Your task to perform on an android device: allow notifications from all sites in the chrome app Image 0: 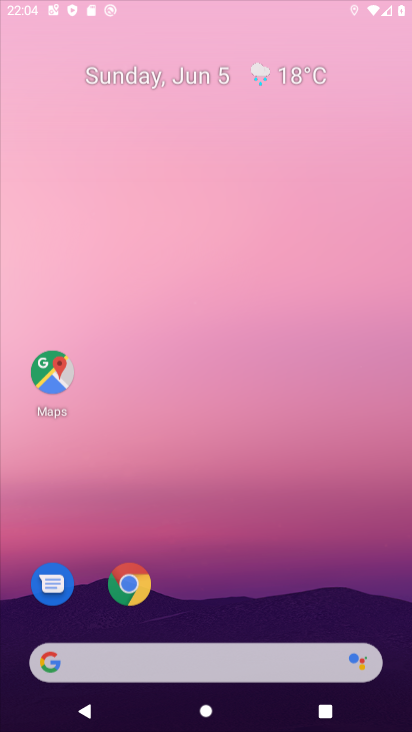
Step 0: drag from (327, 526) to (364, 182)
Your task to perform on an android device: allow notifications from all sites in the chrome app Image 1: 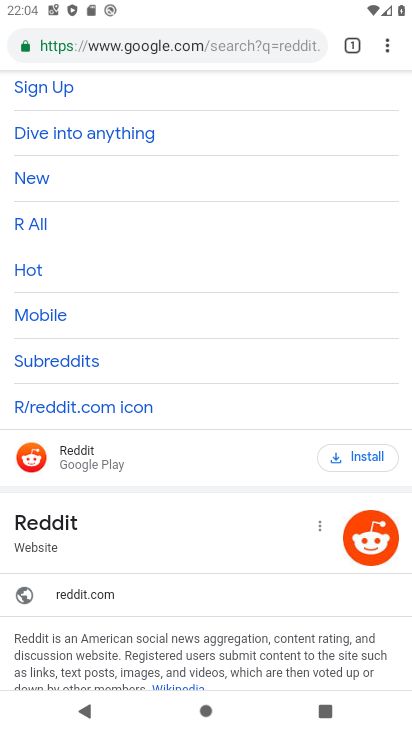
Step 1: press home button
Your task to perform on an android device: allow notifications from all sites in the chrome app Image 2: 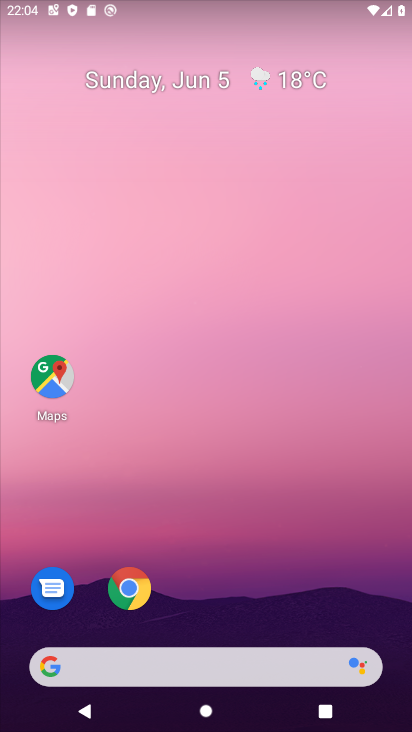
Step 2: drag from (366, 597) to (377, 148)
Your task to perform on an android device: allow notifications from all sites in the chrome app Image 3: 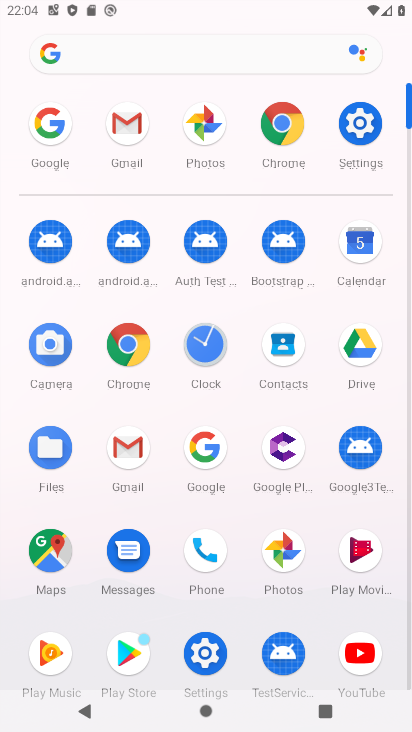
Step 3: click (145, 353)
Your task to perform on an android device: allow notifications from all sites in the chrome app Image 4: 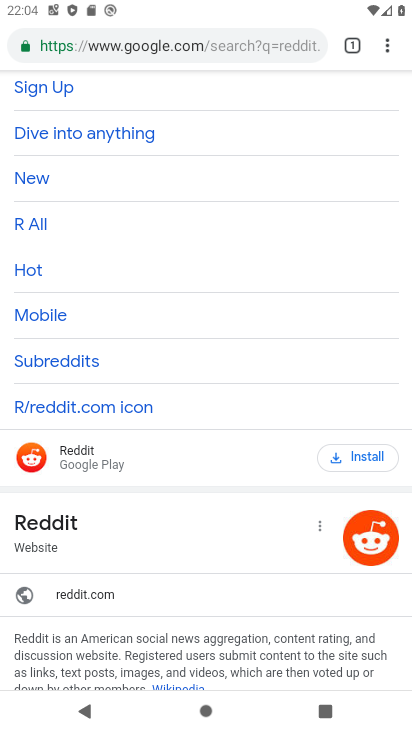
Step 4: drag from (225, 168) to (230, 324)
Your task to perform on an android device: allow notifications from all sites in the chrome app Image 5: 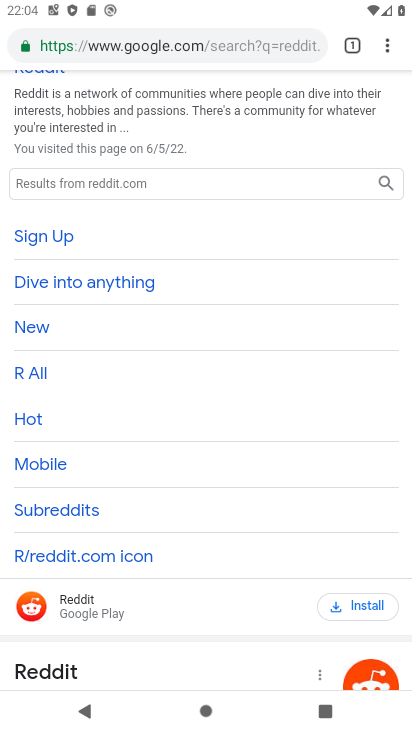
Step 5: drag from (234, 196) to (244, 378)
Your task to perform on an android device: allow notifications from all sites in the chrome app Image 6: 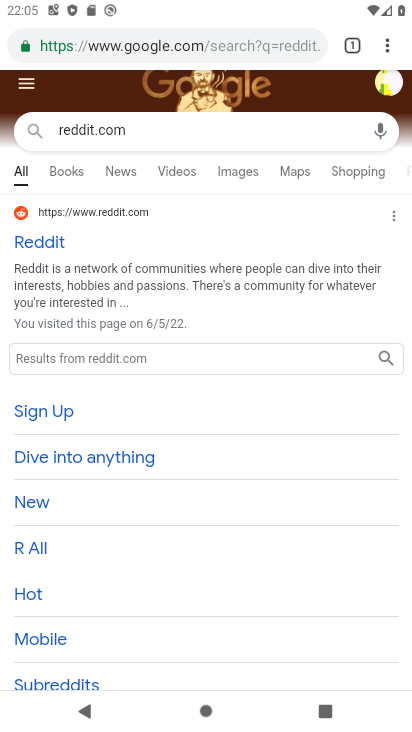
Step 6: click (385, 50)
Your task to perform on an android device: allow notifications from all sites in the chrome app Image 7: 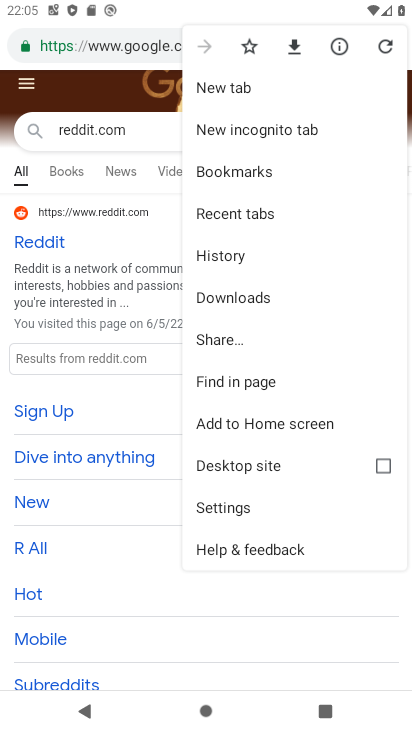
Step 7: click (277, 509)
Your task to perform on an android device: allow notifications from all sites in the chrome app Image 8: 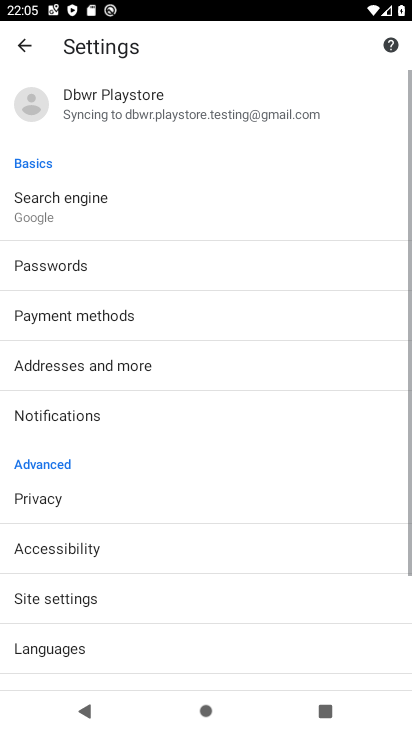
Step 8: drag from (269, 533) to (270, 444)
Your task to perform on an android device: allow notifications from all sites in the chrome app Image 9: 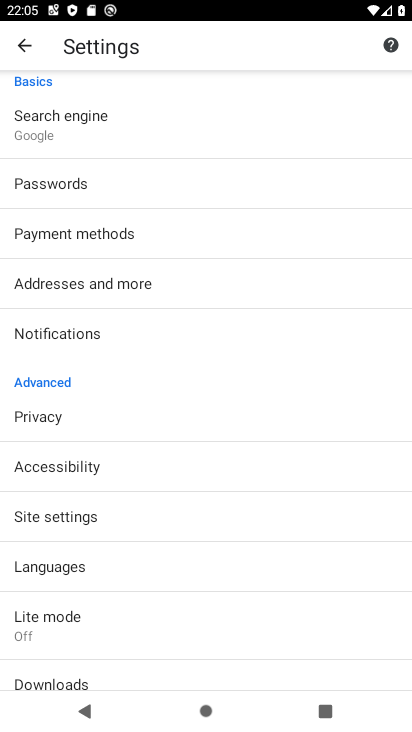
Step 9: drag from (274, 548) to (283, 461)
Your task to perform on an android device: allow notifications from all sites in the chrome app Image 10: 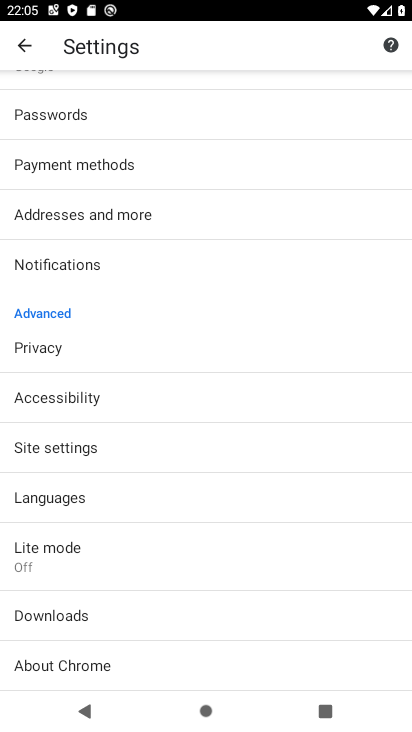
Step 10: drag from (253, 572) to (273, 480)
Your task to perform on an android device: allow notifications from all sites in the chrome app Image 11: 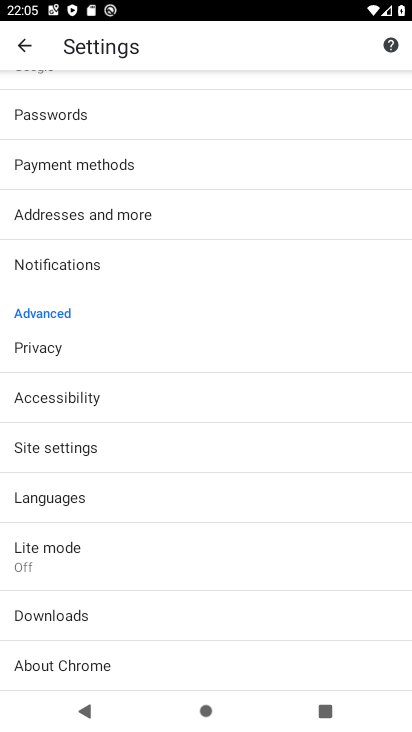
Step 11: click (191, 449)
Your task to perform on an android device: allow notifications from all sites in the chrome app Image 12: 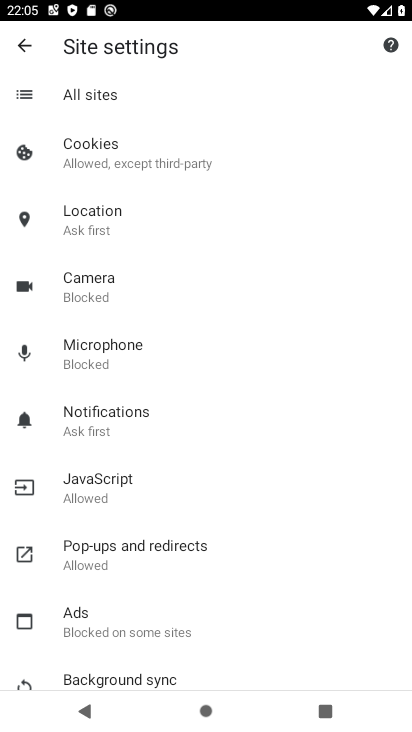
Step 12: drag from (303, 515) to (304, 278)
Your task to perform on an android device: allow notifications from all sites in the chrome app Image 13: 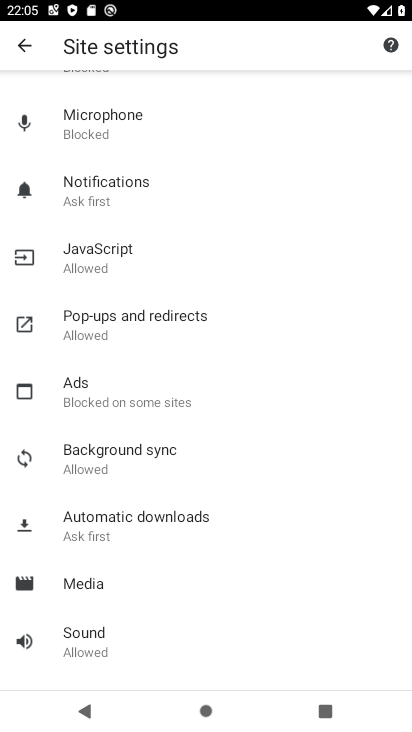
Step 13: drag from (305, 475) to (323, 291)
Your task to perform on an android device: allow notifications from all sites in the chrome app Image 14: 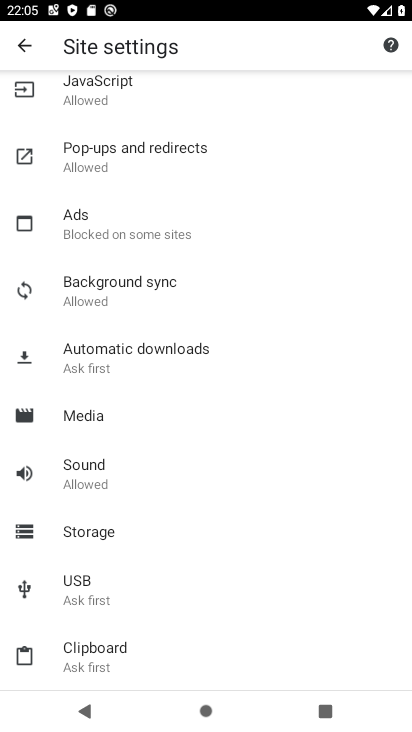
Step 14: drag from (336, 177) to (315, 343)
Your task to perform on an android device: allow notifications from all sites in the chrome app Image 15: 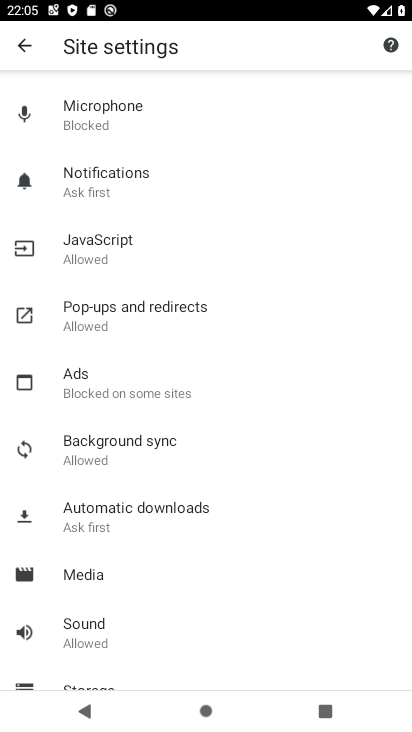
Step 15: drag from (314, 197) to (320, 313)
Your task to perform on an android device: allow notifications from all sites in the chrome app Image 16: 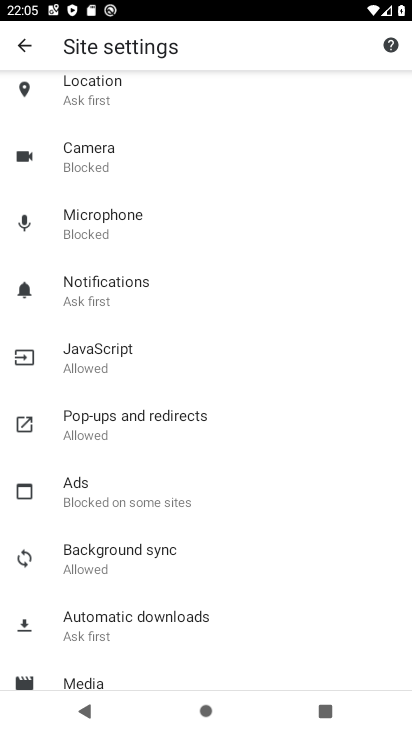
Step 16: click (147, 288)
Your task to perform on an android device: allow notifications from all sites in the chrome app Image 17: 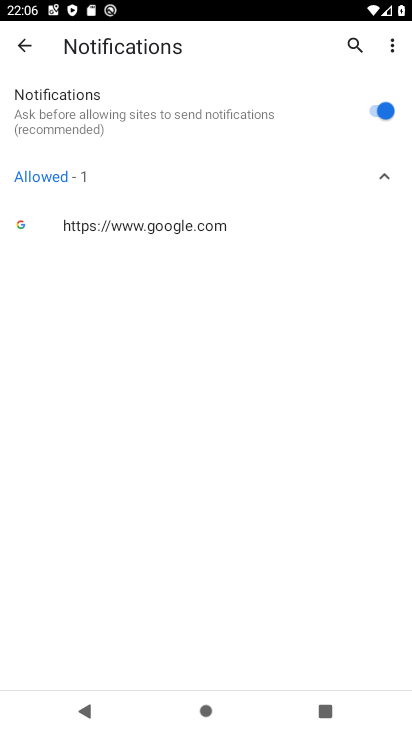
Step 17: task complete